Your task to perform on an android device: Open Chrome and go to settings Image 0: 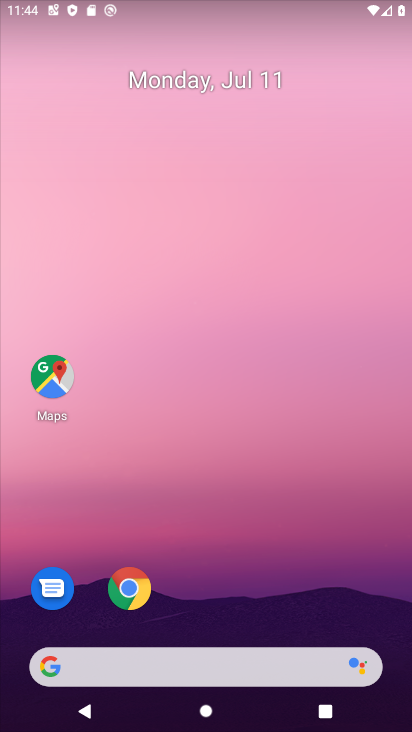
Step 0: click (123, 588)
Your task to perform on an android device: Open Chrome and go to settings Image 1: 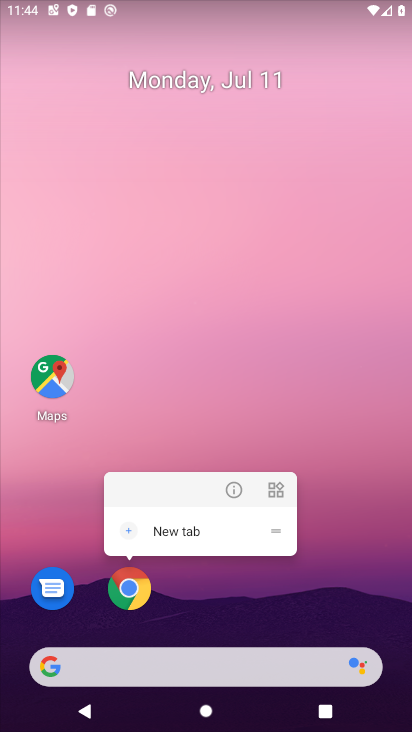
Step 1: click (126, 585)
Your task to perform on an android device: Open Chrome and go to settings Image 2: 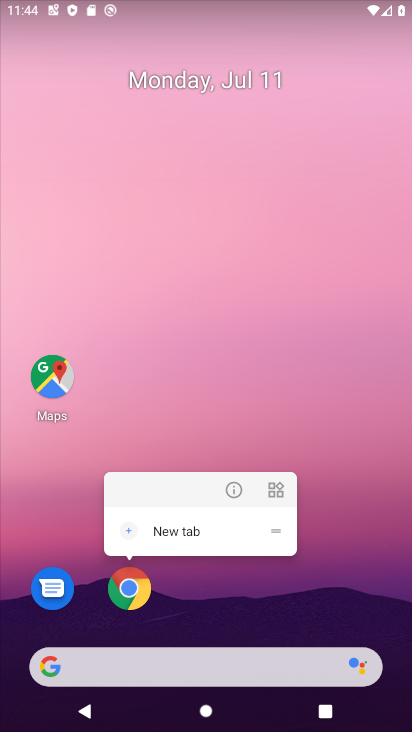
Step 2: click (139, 585)
Your task to perform on an android device: Open Chrome and go to settings Image 3: 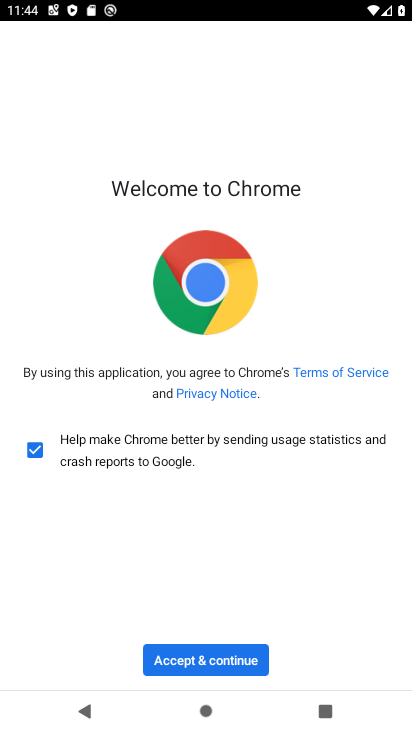
Step 3: click (180, 668)
Your task to perform on an android device: Open Chrome and go to settings Image 4: 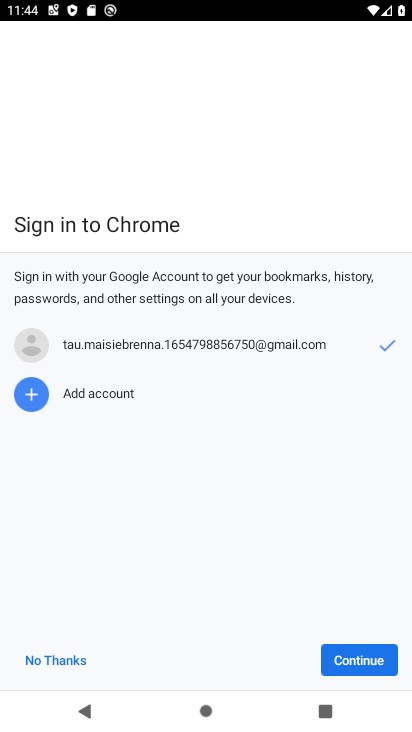
Step 4: click (329, 656)
Your task to perform on an android device: Open Chrome and go to settings Image 5: 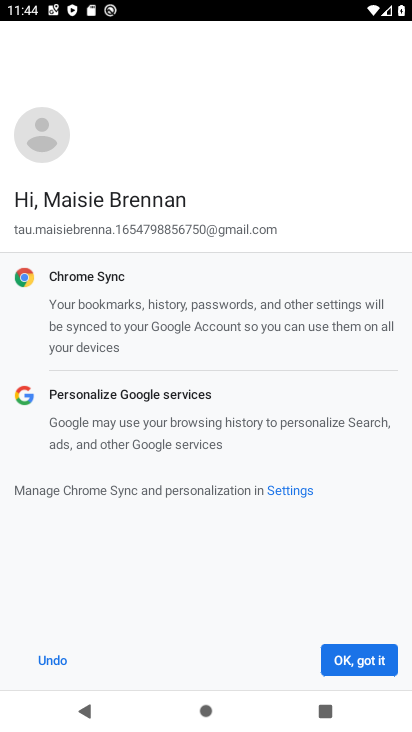
Step 5: click (359, 657)
Your task to perform on an android device: Open Chrome and go to settings Image 6: 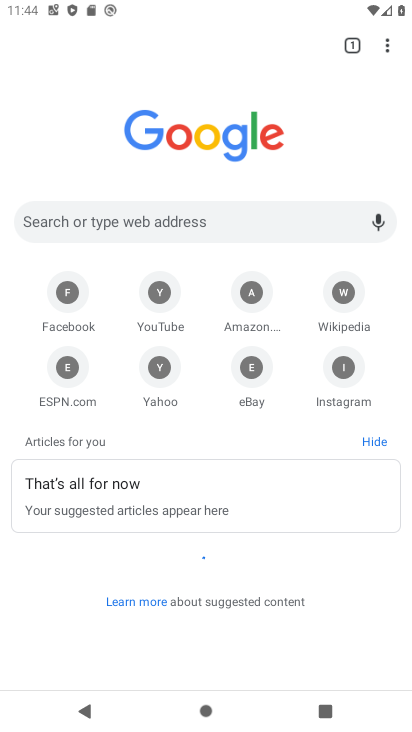
Step 6: task complete